Your task to perform on an android device: star an email in the gmail app Image 0: 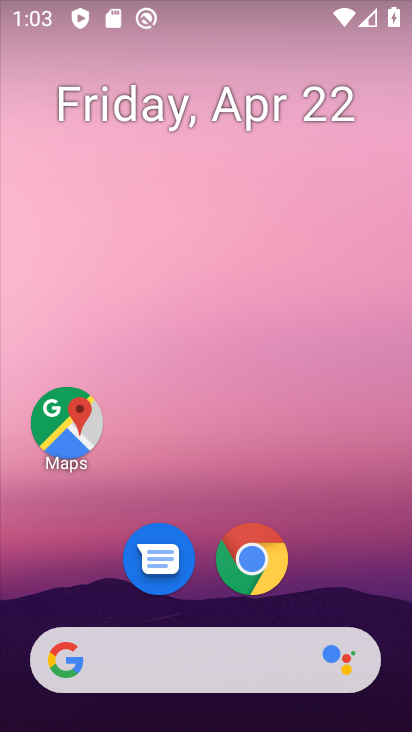
Step 0: drag from (359, 551) to (311, 118)
Your task to perform on an android device: star an email in the gmail app Image 1: 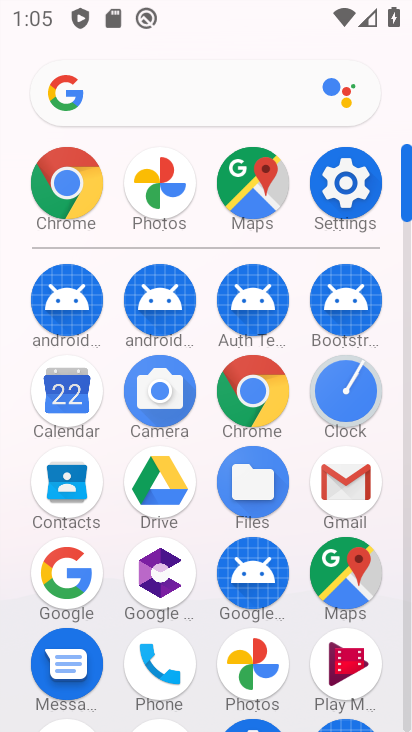
Step 1: click (365, 498)
Your task to perform on an android device: star an email in the gmail app Image 2: 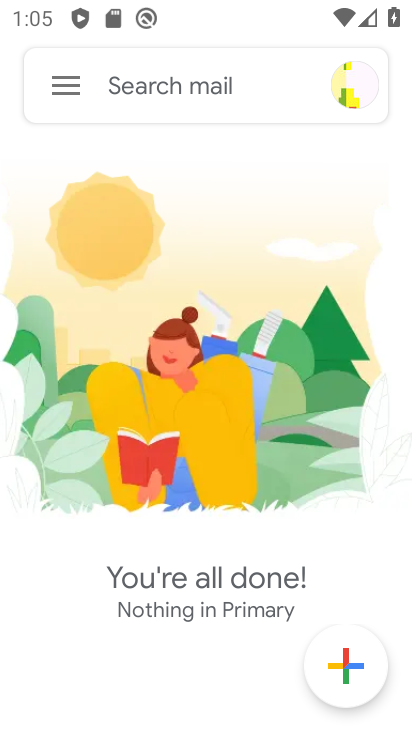
Step 2: task complete